Your task to perform on an android device: Go to CNN.com Image 0: 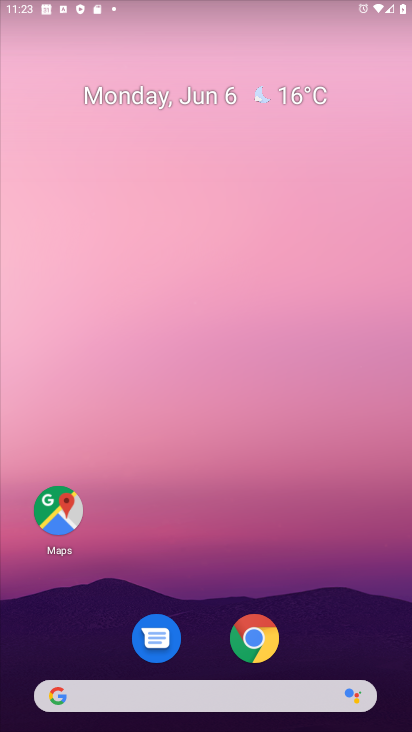
Step 0: press home button
Your task to perform on an android device: Go to CNN.com Image 1: 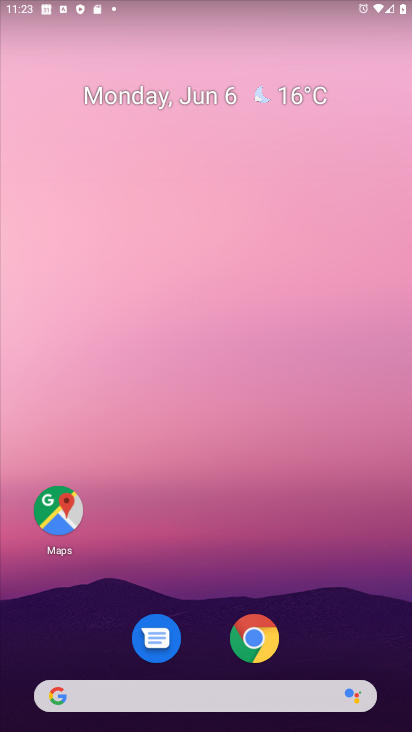
Step 1: drag from (305, 710) to (167, 205)
Your task to perform on an android device: Go to CNN.com Image 2: 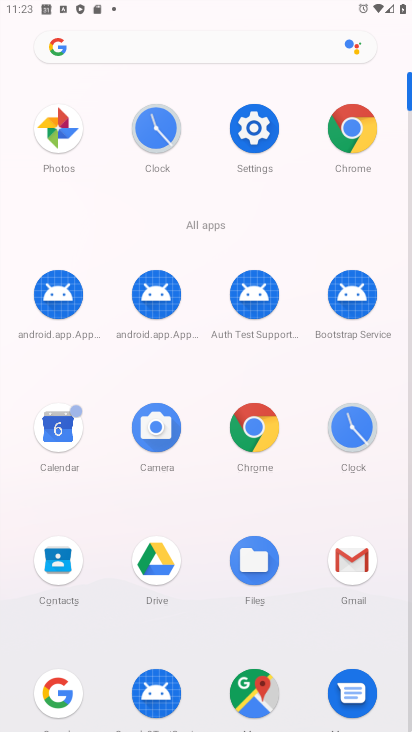
Step 2: click (357, 126)
Your task to perform on an android device: Go to CNN.com Image 3: 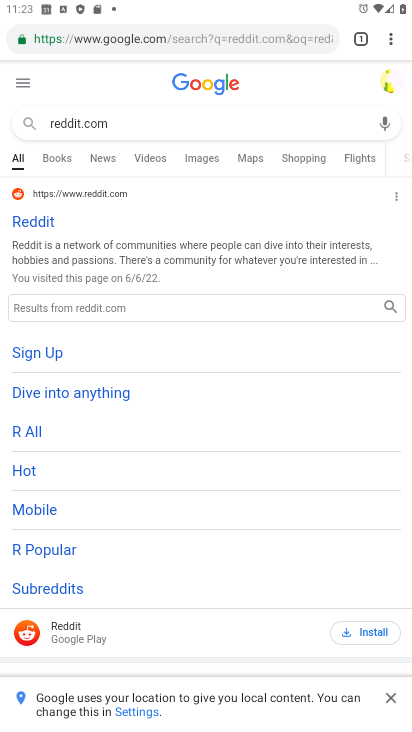
Step 3: click (149, 123)
Your task to perform on an android device: Go to CNN.com Image 4: 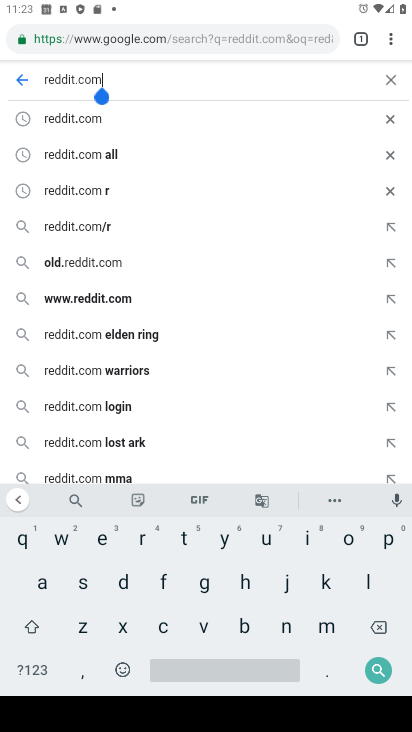
Step 4: click (214, 33)
Your task to perform on an android device: Go to CNN.com Image 5: 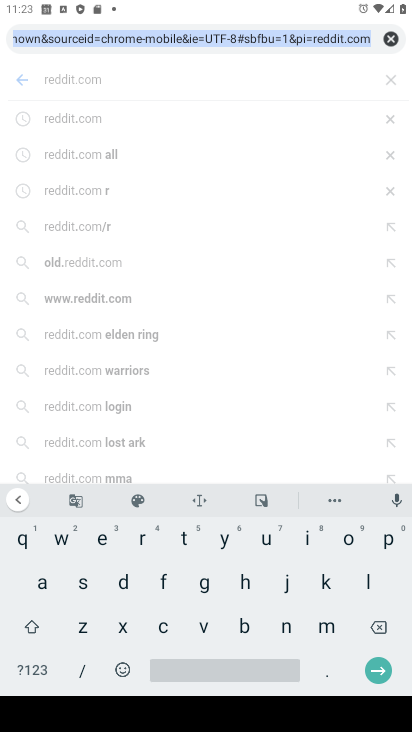
Step 5: click (387, 38)
Your task to perform on an android device: Go to CNN.com Image 6: 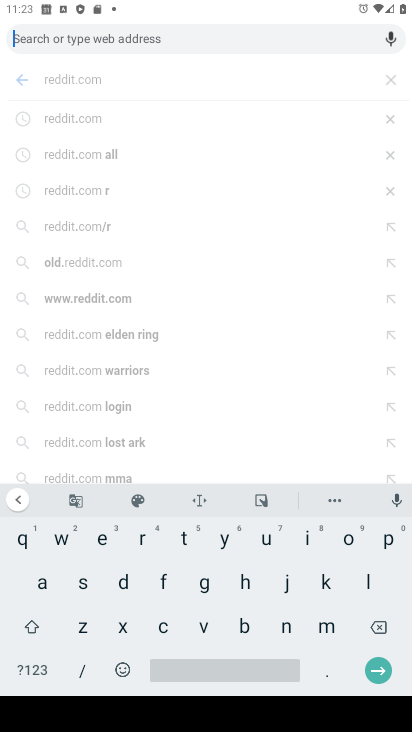
Step 6: click (167, 619)
Your task to perform on an android device: Go to CNN.com Image 7: 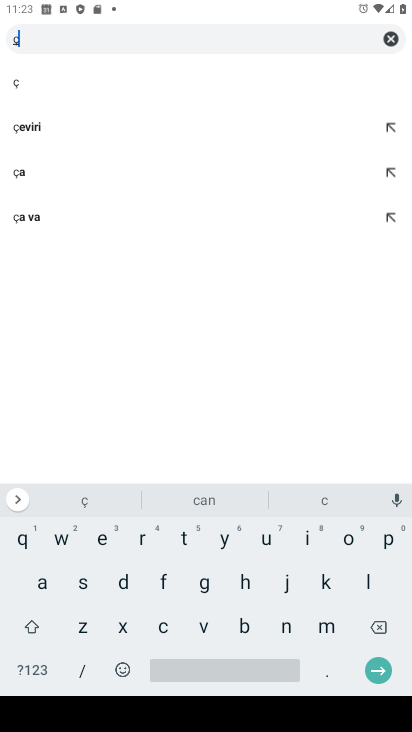
Step 7: click (381, 627)
Your task to perform on an android device: Go to CNN.com Image 8: 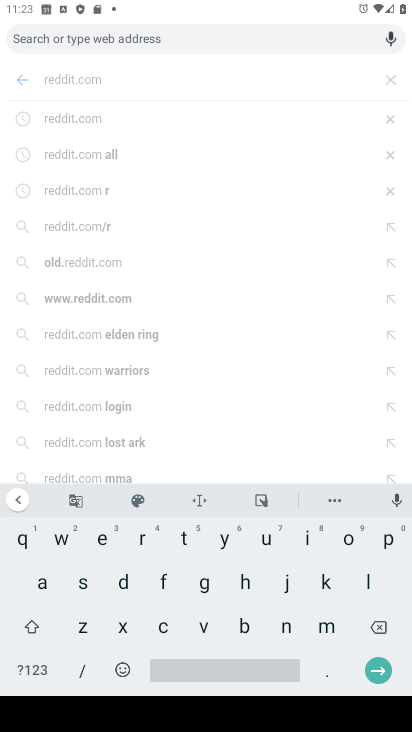
Step 8: click (163, 622)
Your task to perform on an android device: Go to CNN.com Image 9: 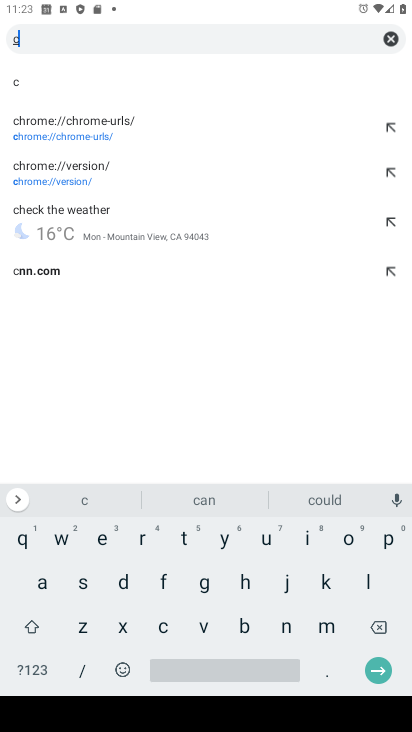
Step 9: click (286, 622)
Your task to perform on an android device: Go to CNN.com Image 10: 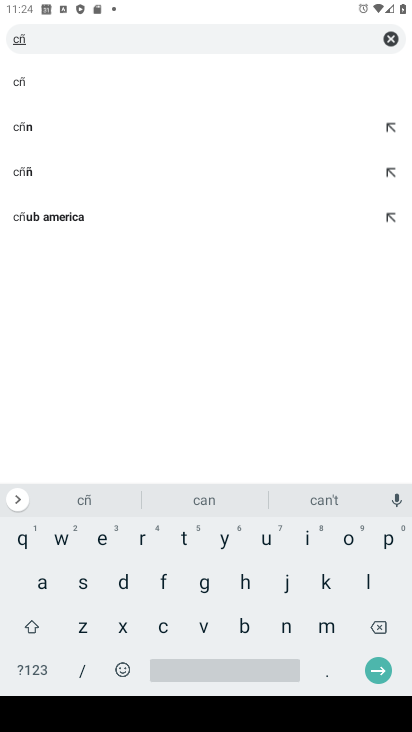
Step 10: click (379, 626)
Your task to perform on an android device: Go to CNN.com Image 11: 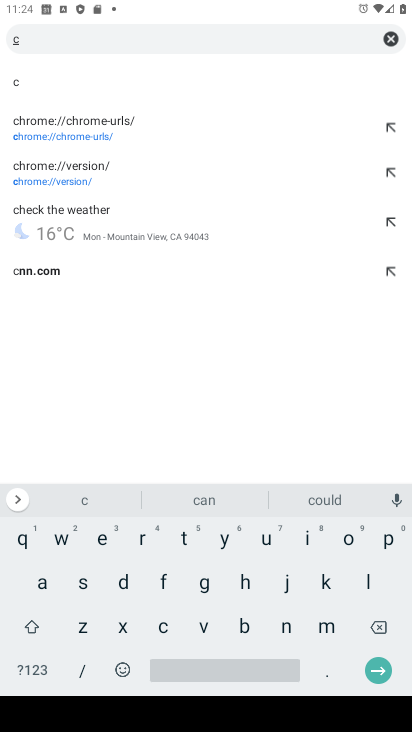
Step 11: click (278, 629)
Your task to perform on an android device: Go to CNN.com Image 12: 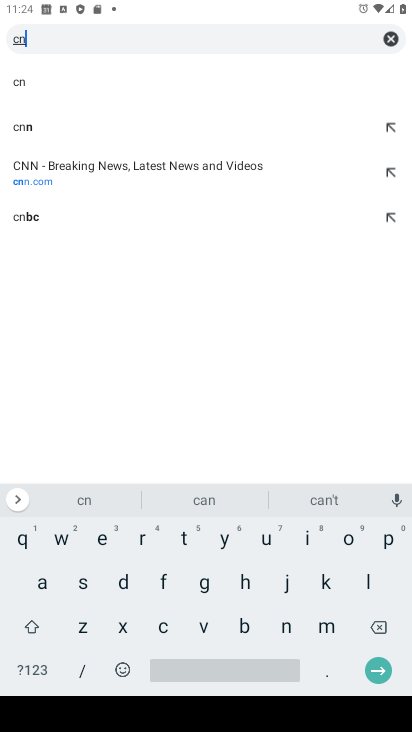
Step 12: click (278, 629)
Your task to perform on an android device: Go to CNN.com Image 13: 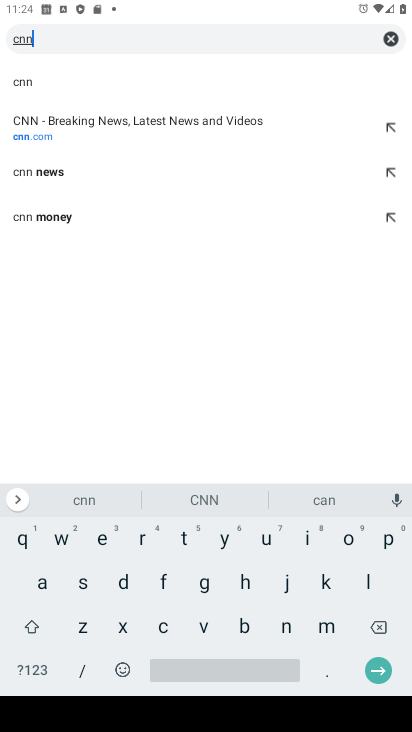
Step 13: click (37, 122)
Your task to perform on an android device: Go to CNN.com Image 14: 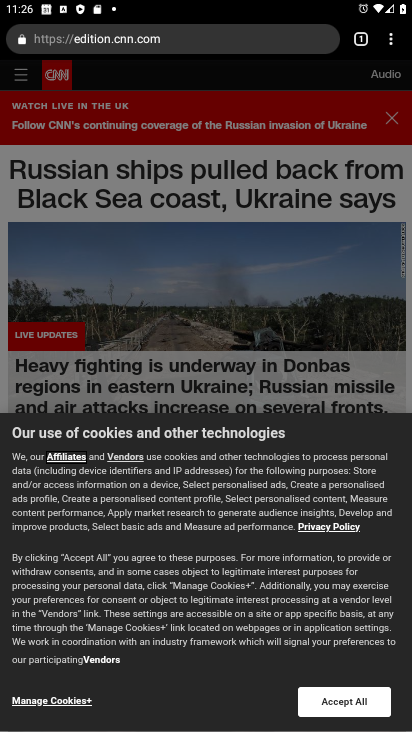
Step 14: task complete